Your task to perform on an android device: Show me productivity apps on the Play Store Image 0: 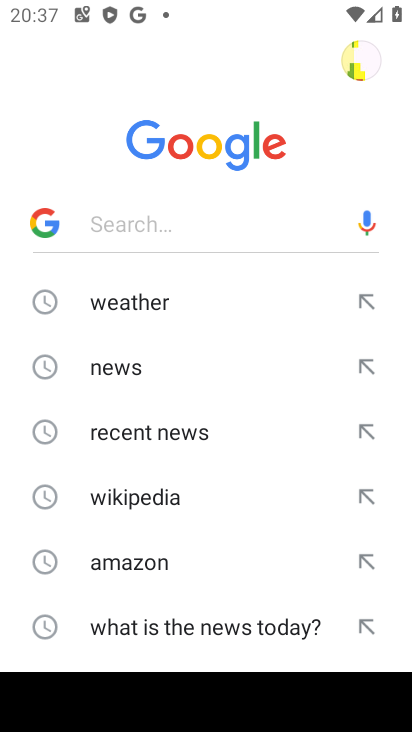
Step 0: press home button
Your task to perform on an android device: Show me productivity apps on the Play Store Image 1: 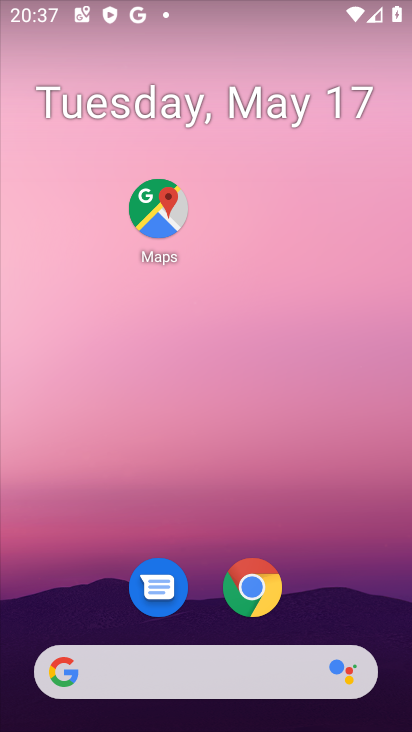
Step 1: drag from (61, 524) to (294, 137)
Your task to perform on an android device: Show me productivity apps on the Play Store Image 2: 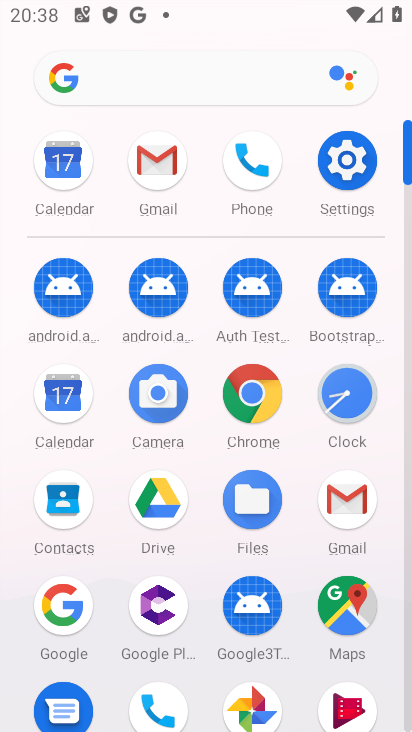
Step 2: drag from (2, 619) to (261, 171)
Your task to perform on an android device: Show me productivity apps on the Play Store Image 3: 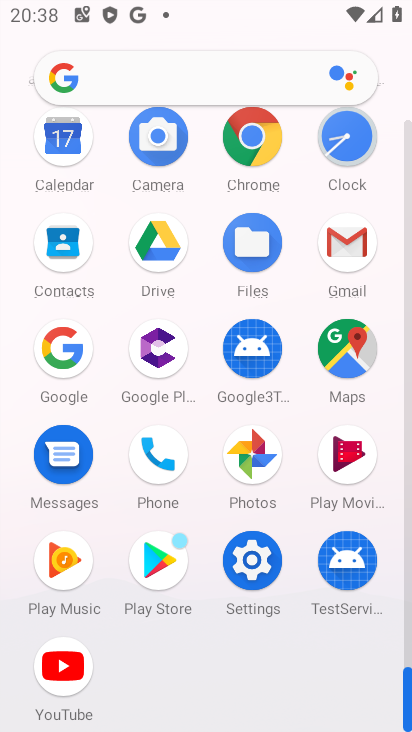
Step 3: click (154, 556)
Your task to perform on an android device: Show me productivity apps on the Play Store Image 4: 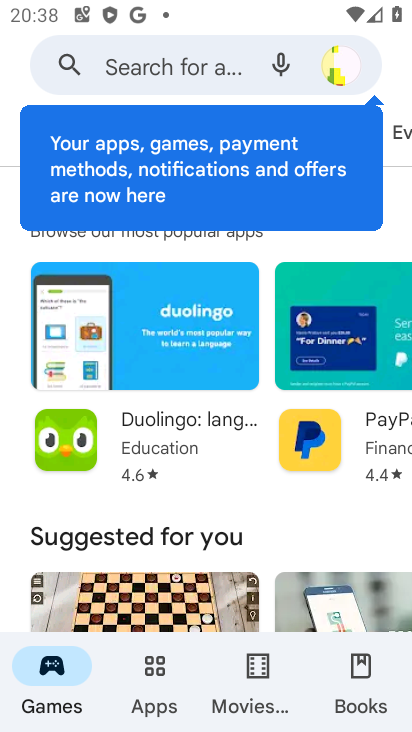
Step 4: click (170, 674)
Your task to perform on an android device: Show me productivity apps on the Play Store Image 5: 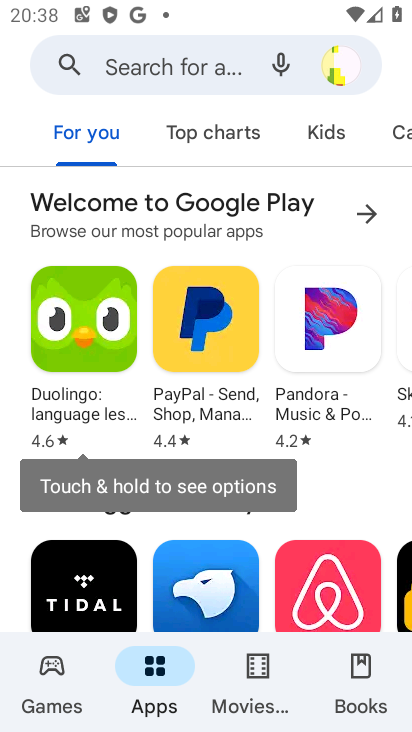
Step 5: task complete